Your task to perform on an android device: Open sound settings Image 0: 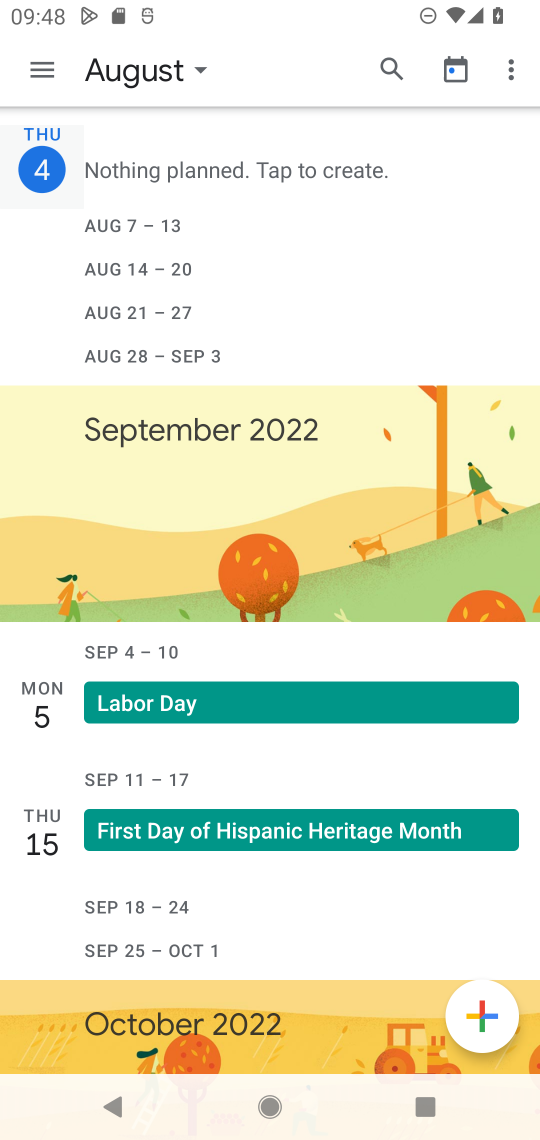
Step 0: press home button
Your task to perform on an android device: Open sound settings Image 1: 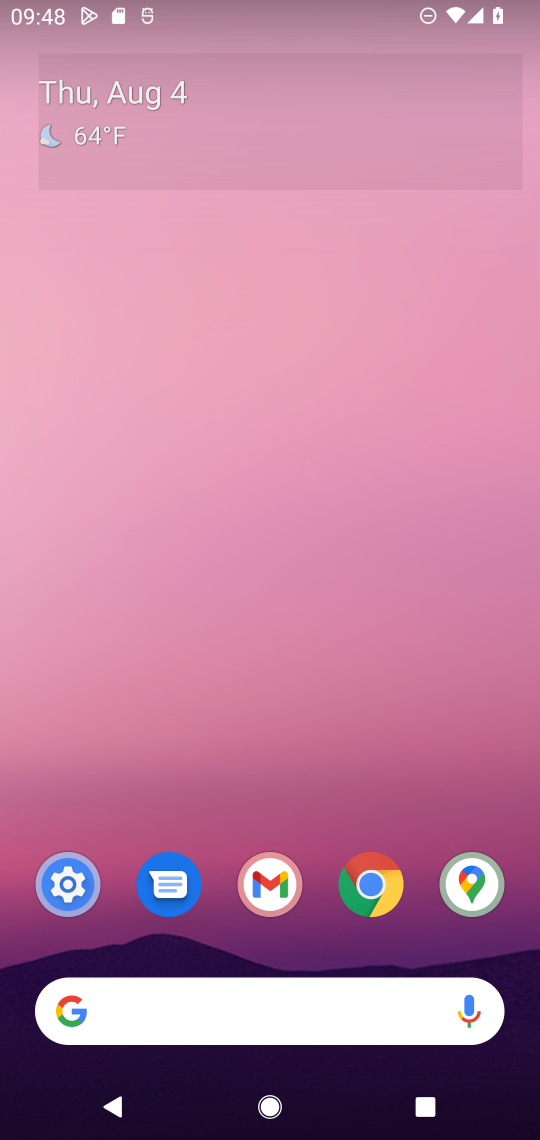
Step 1: click (73, 883)
Your task to perform on an android device: Open sound settings Image 2: 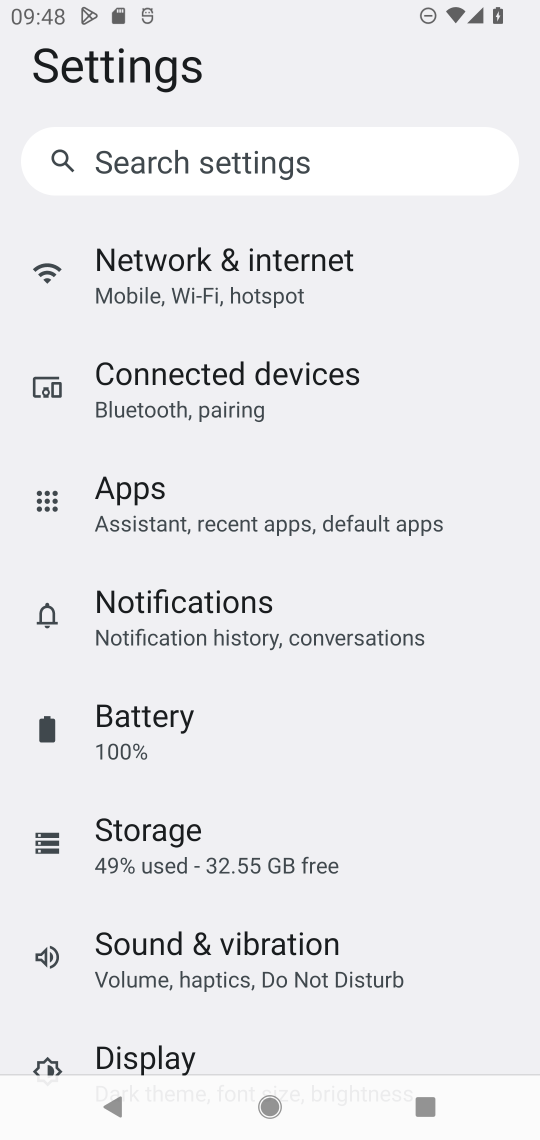
Step 2: click (285, 969)
Your task to perform on an android device: Open sound settings Image 3: 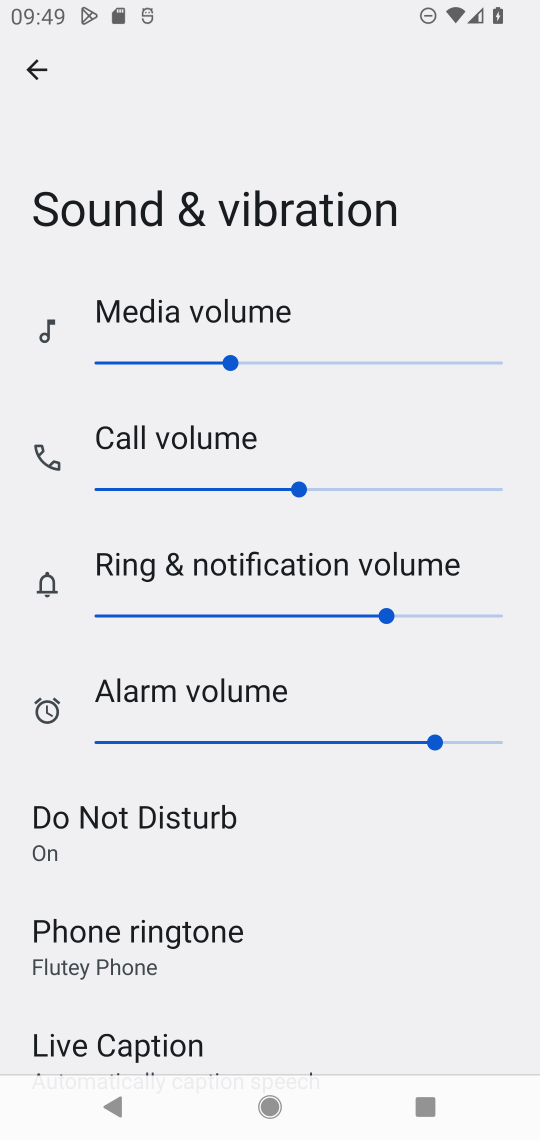
Step 3: task complete